Your task to perform on an android device: Open calendar and show me the third week of next month Image 0: 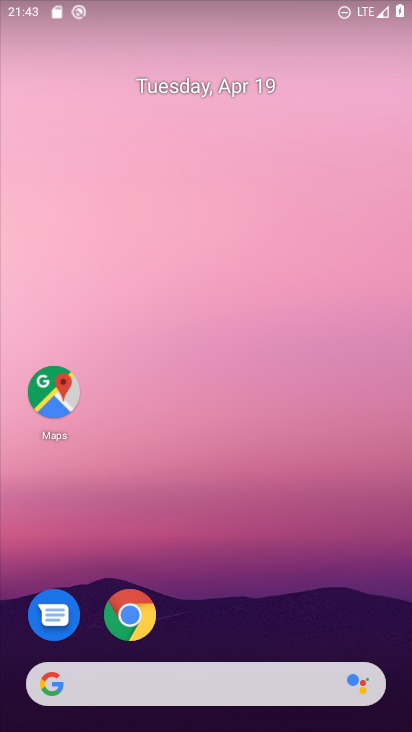
Step 0: click (209, 99)
Your task to perform on an android device: Open calendar and show me the third week of next month Image 1: 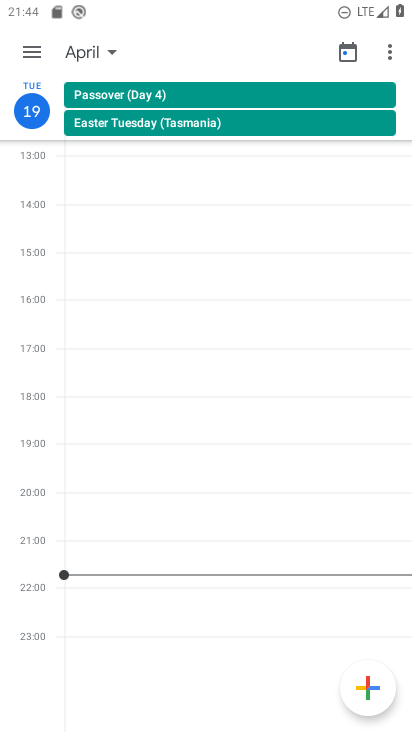
Step 1: click (87, 47)
Your task to perform on an android device: Open calendar and show me the third week of next month Image 2: 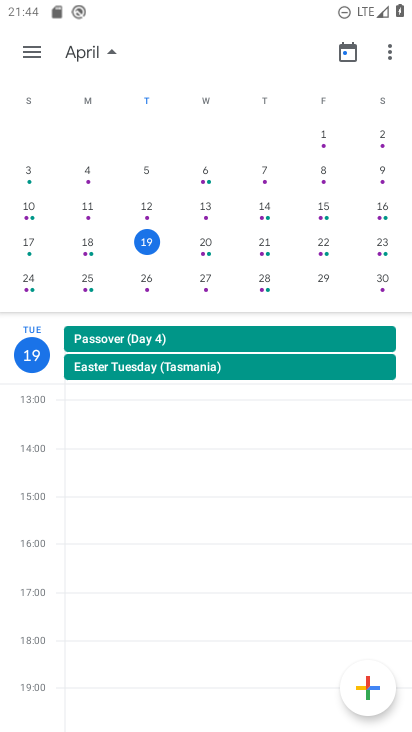
Step 2: drag from (400, 281) to (60, 234)
Your task to perform on an android device: Open calendar and show me the third week of next month Image 3: 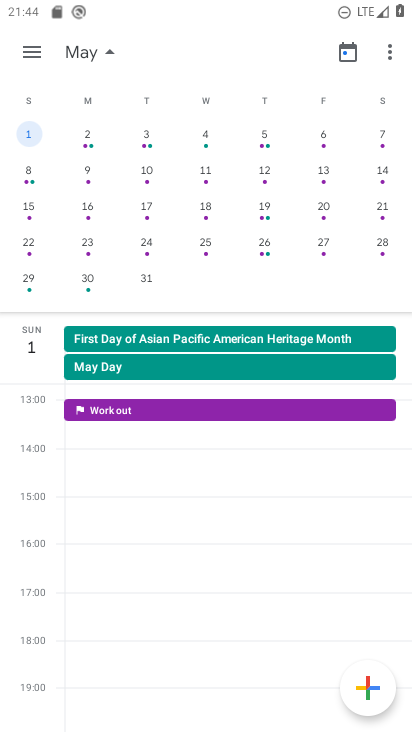
Step 3: click (224, 204)
Your task to perform on an android device: Open calendar and show me the third week of next month Image 4: 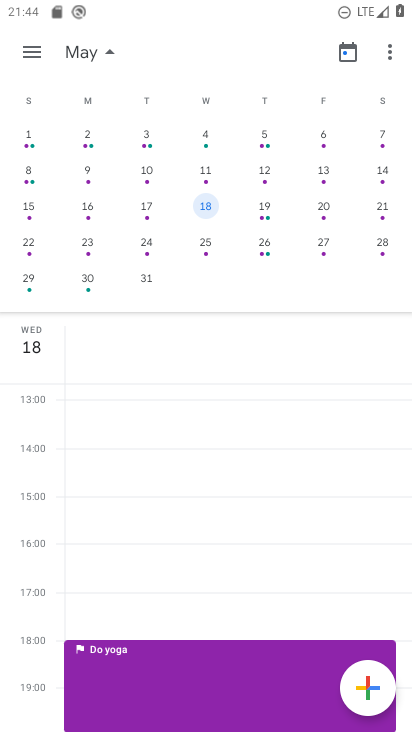
Step 4: task complete